Your task to perform on an android device: Open my contact list Image 0: 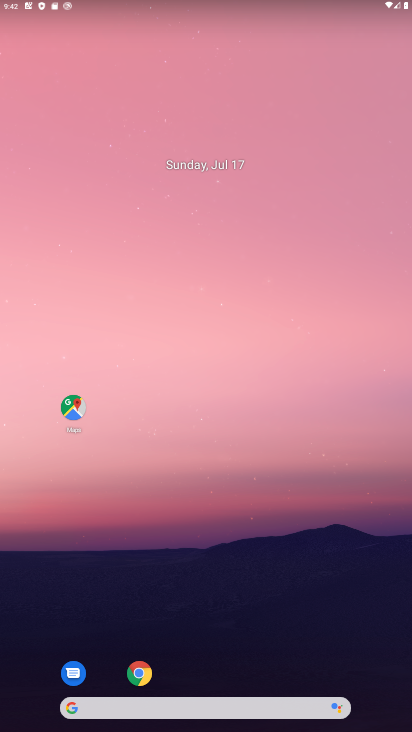
Step 0: drag from (228, 667) to (217, 28)
Your task to perform on an android device: Open my contact list Image 1: 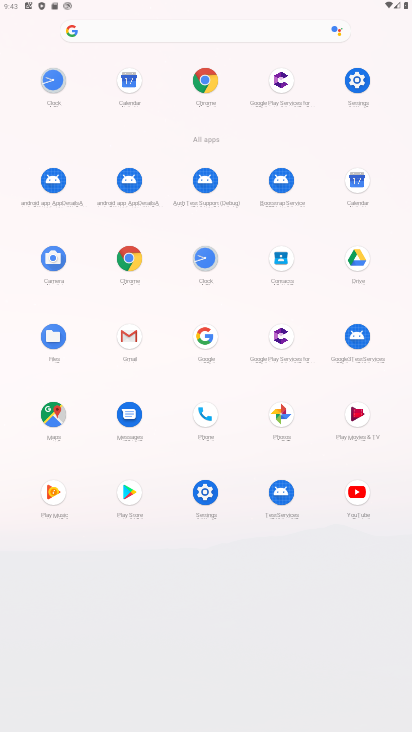
Step 1: click (284, 259)
Your task to perform on an android device: Open my contact list Image 2: 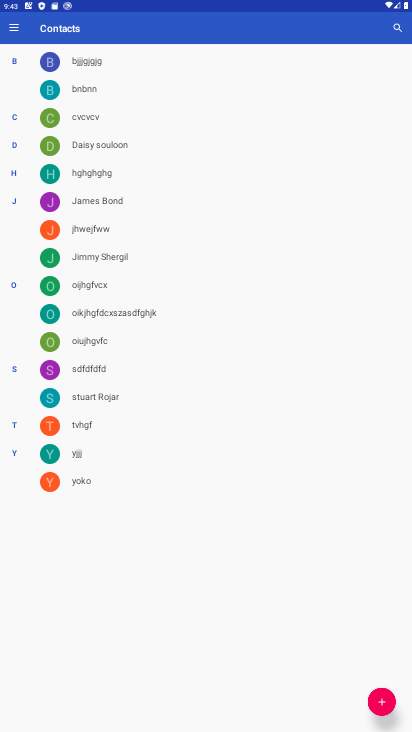
Step 2: task complete